Your task to perform on an android device: turn notification dots off Image 0: 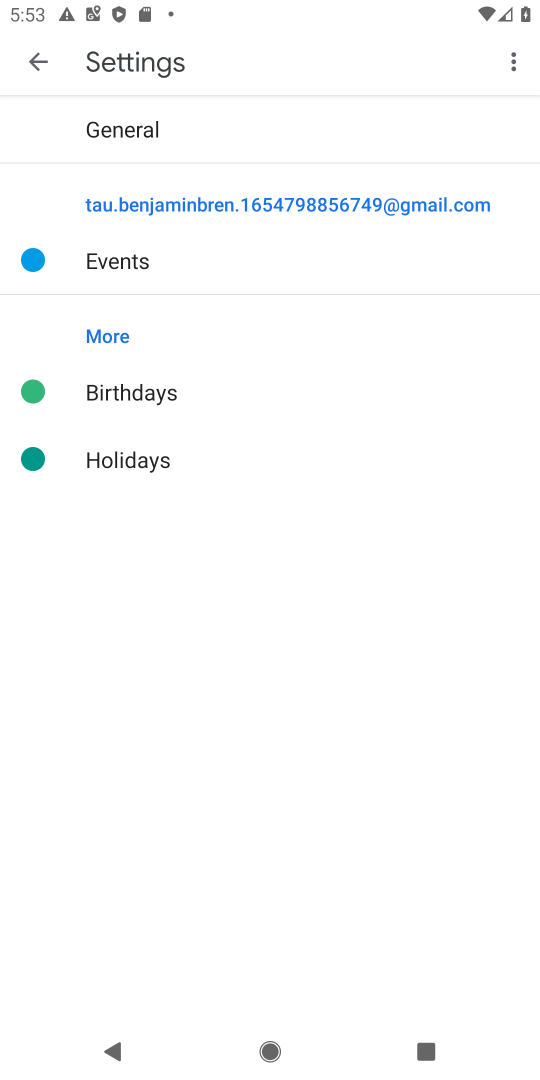
Step 0: press home button
Your task to perform on an android device: turn notification dots off Image 1: 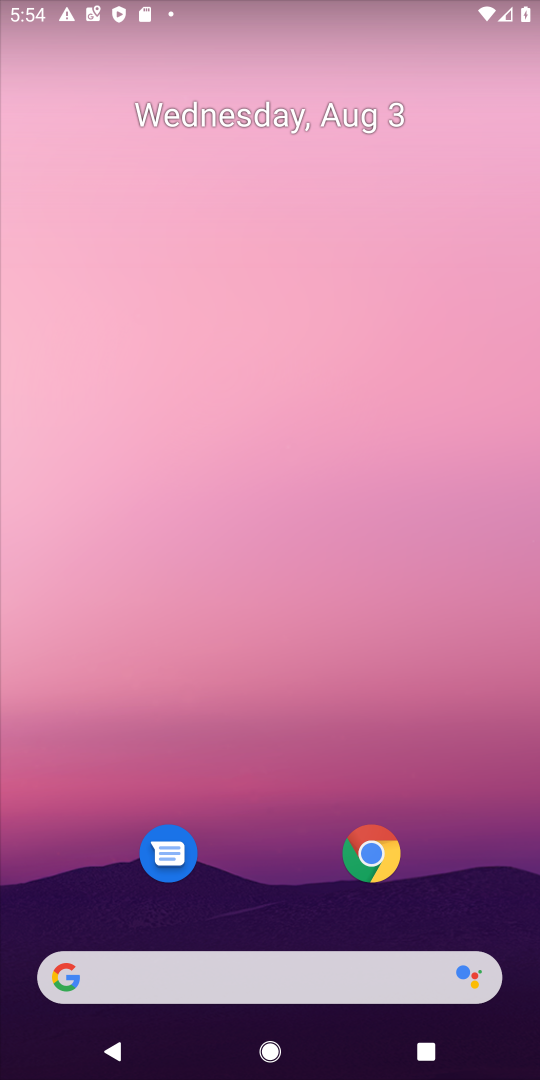
Step 1: drag from (460, 845) to (382, 406)
Your task to perform on an android device: turn notification dots off Image 2: 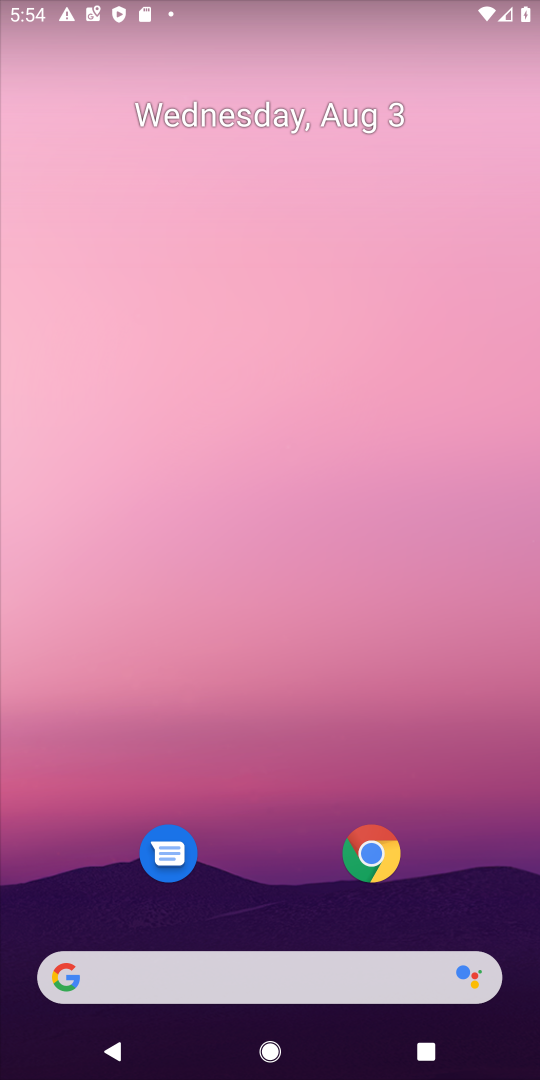
Step 2: drag from (444, 893) to (361, 353)
Your task to perform on an android device: turn notification dots off Image 3: 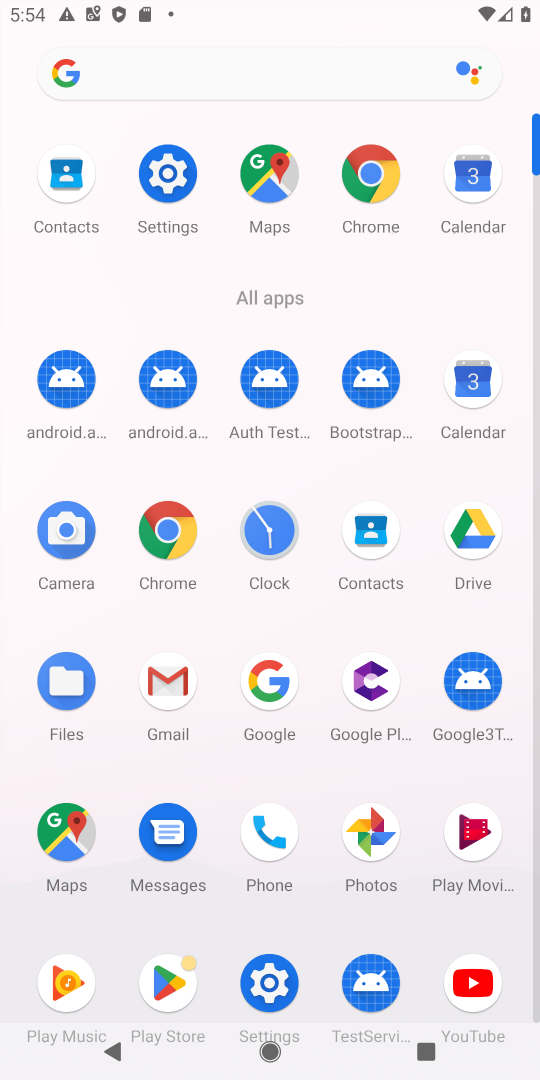
Step 3: click (269, 971)
Your task to perform on an android device: turn notification dots off Image 4: 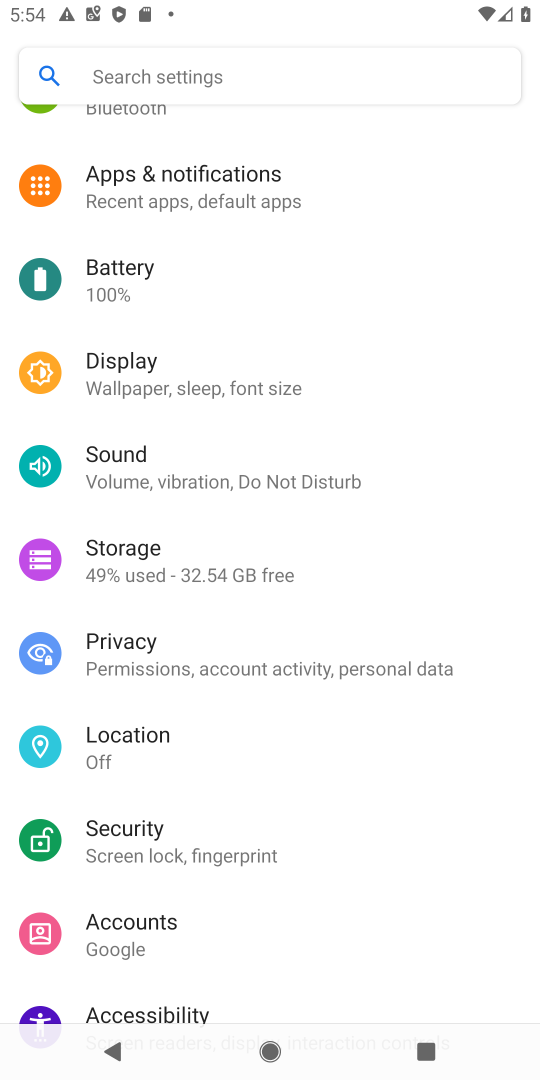
Step 4: click (169, 199)
Your task to perform on an android device: turn notification dots off Image 5: 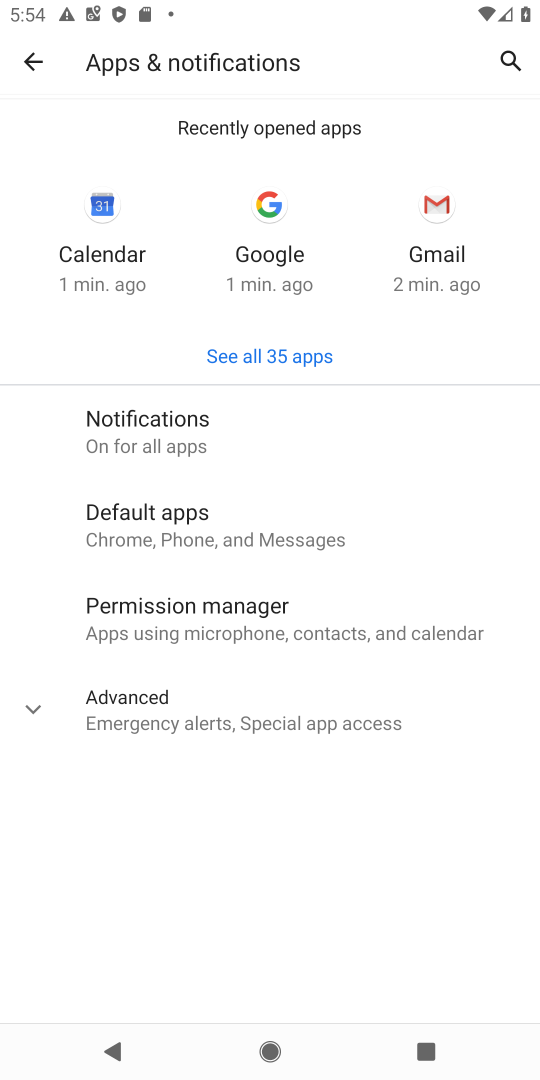
Step 5: click (220, 444)
Your task to perform on an android device: turn notification dots off Image 6: 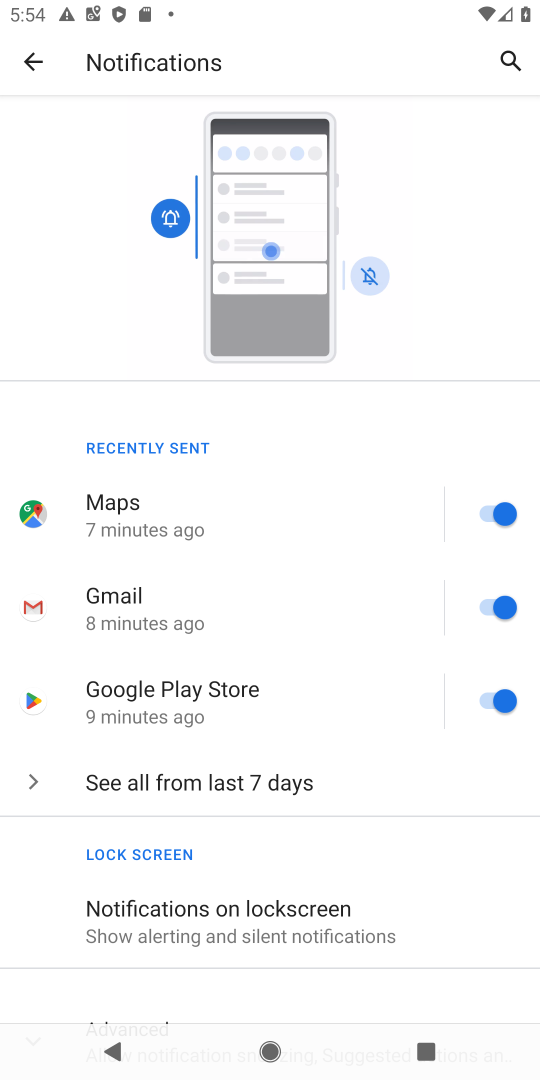
Step 6: drag from (338, 885) to (299, 400)
Your task to perform on an android device: turn notification dots off Image 7: 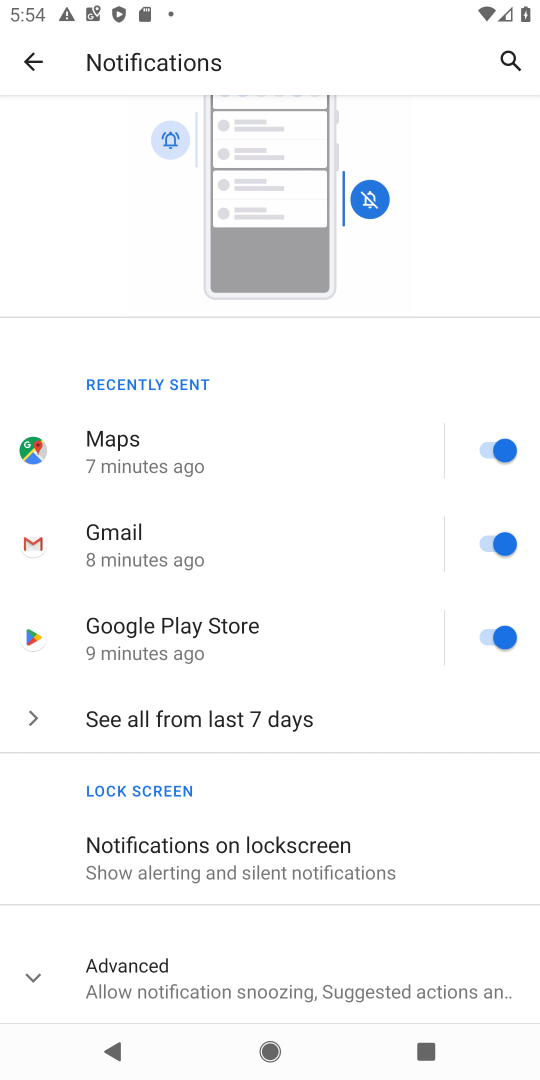
Step 7: click (240, 955)
Your task to perform on an android device: turn notification dots off Image 8: 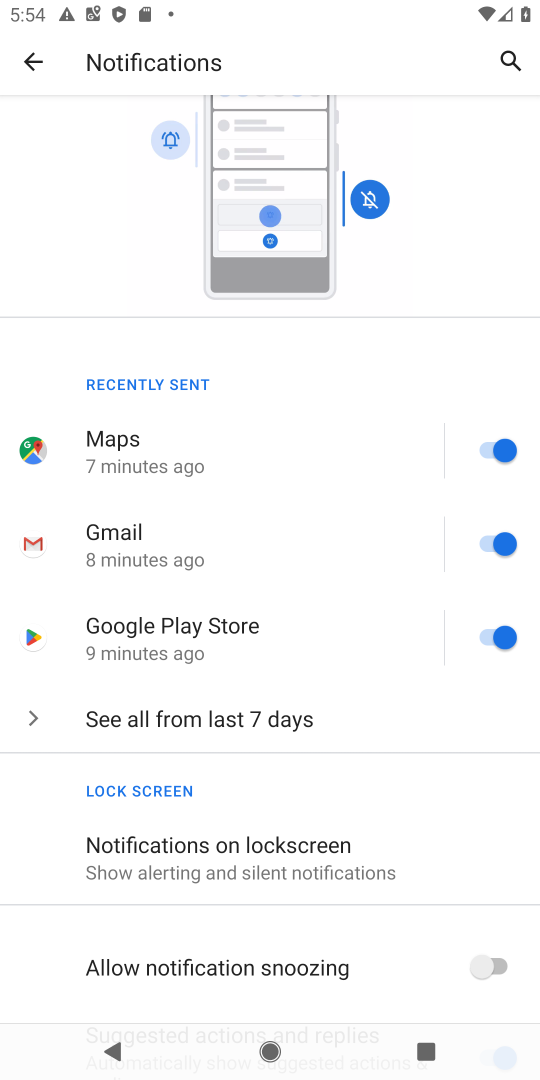
Step 8: drag from (388, 908) to (305, 531)
Your task to perform on an android device: turn notification dots off Image 9: 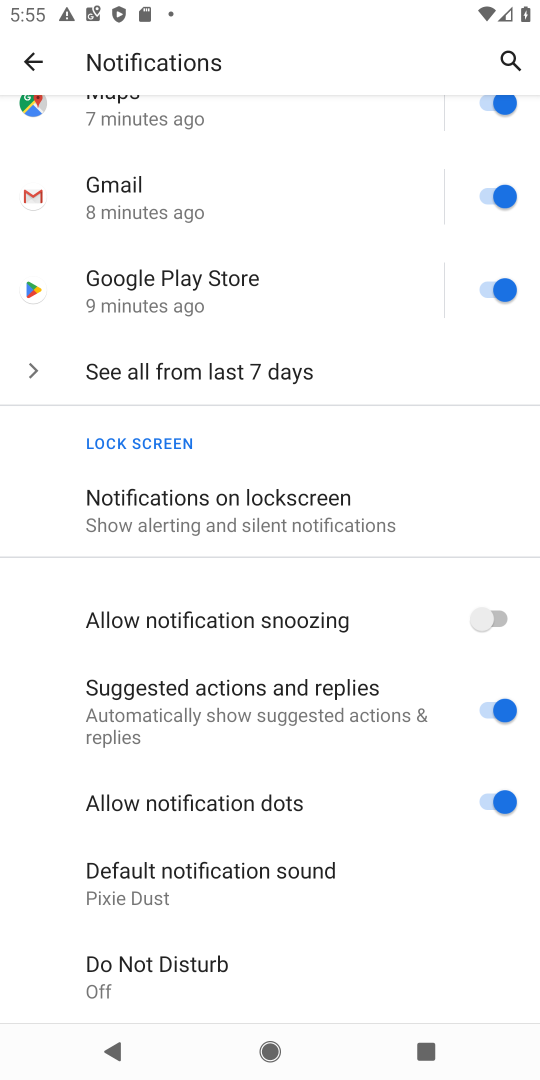
Step 9: click (494, 802)
Your task to perform on an android device: turn notification dots off Image 10: 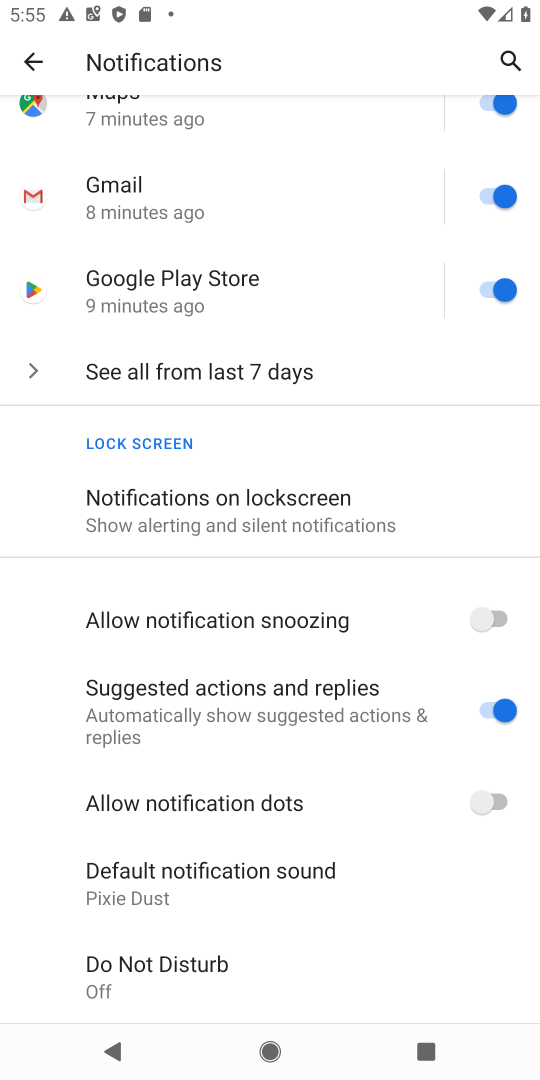
Step 10: task complete